Your task to perform on an android device: turn notification dots on Image 0: 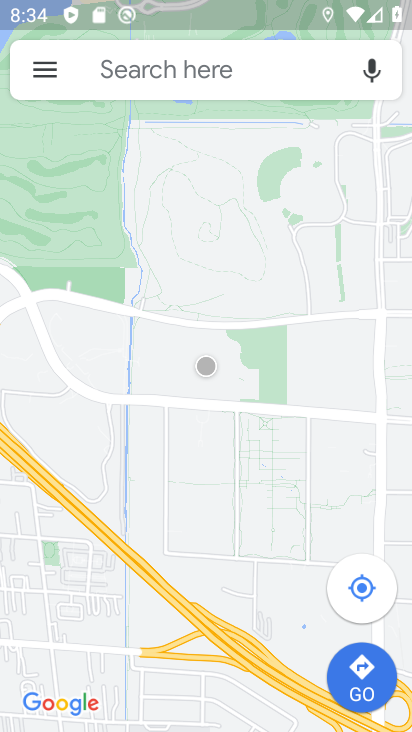
Step 0: press home button
Your task to perform on an android device: turn notification dots on Image 1: 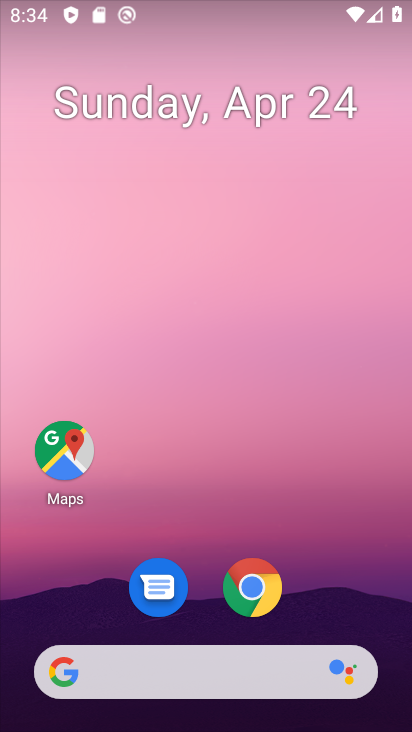
Step 1: drag from (271, 94) to (282, 0)
Your task to perform on an android device: turn notification dots on Image 2: 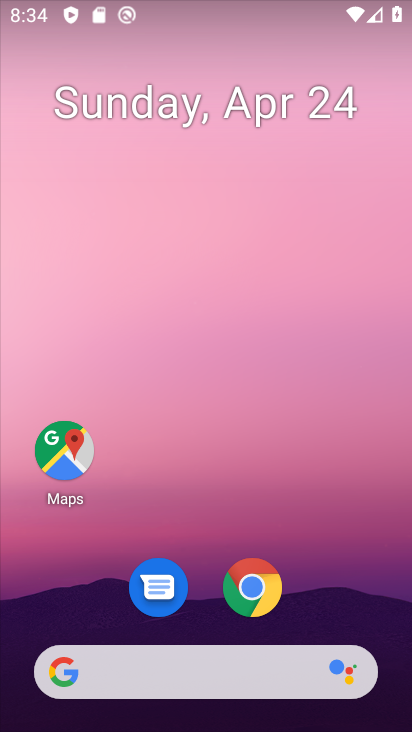
Step 2: drag from (205, 584) to (316, 7)
Your task to perform on an android device: turn notification dots on Image 3: 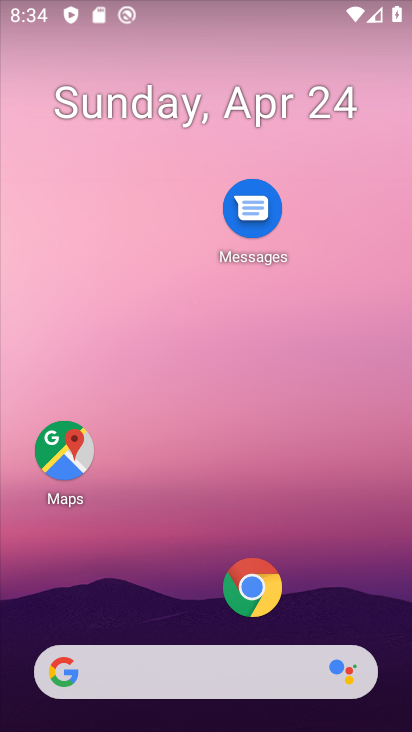
Step 3: drag from (161, 497) to (233, 3)
Your task to perform on an android device: turn notification dots on Image 4: 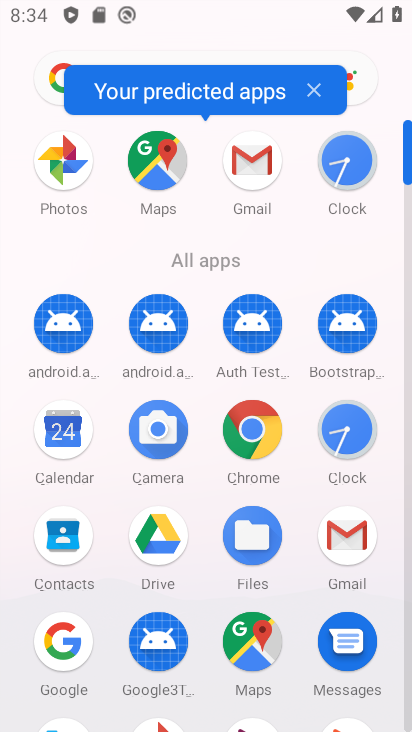
Step 4: drag from (197, 600) to (279, 37)
Your task to perform on an android device: turn notification dots on Image 5: 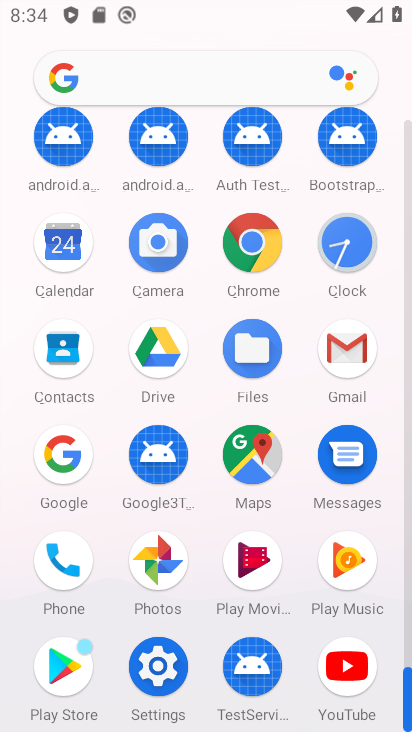
Step 5: click (146, 679)
Your task to perform on an android device: turn notification dots on Image 6: 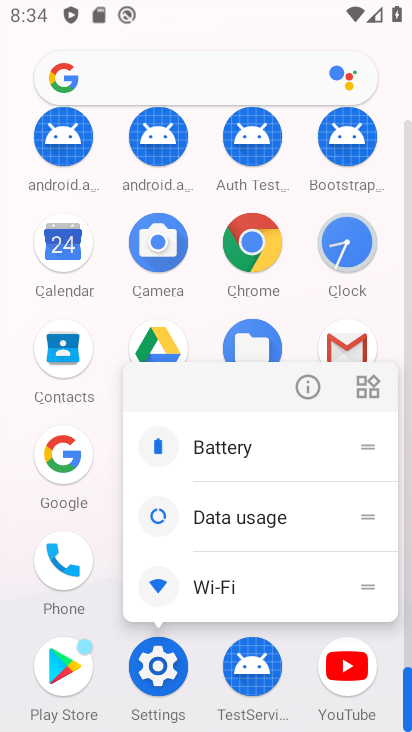
Step 6: click (150, 677)
Your task to perform on an android device: turn notification dots on Image 7: 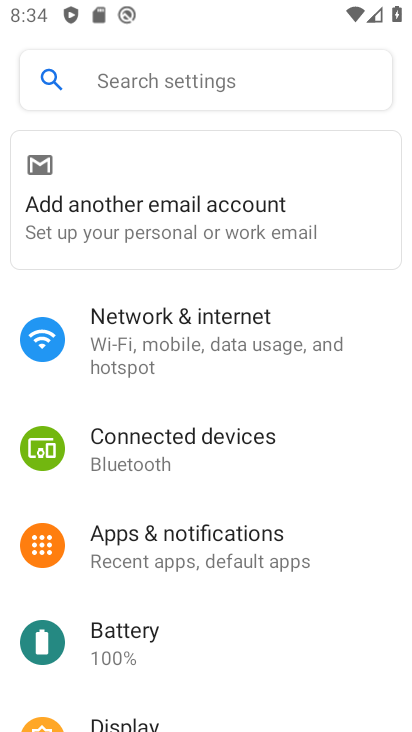
Step 7: click (192, 548)
Your task to perform on an android device: turn notification dots on Image 8: 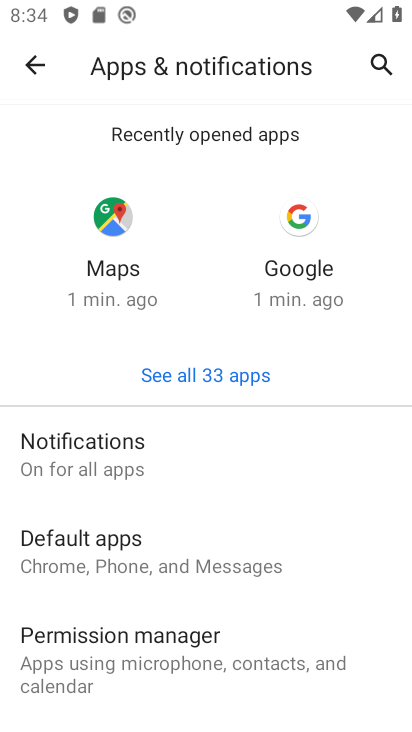
Step 8: click (130, 462)
Your task to perform on an android device: turn notification dots on Image 9: 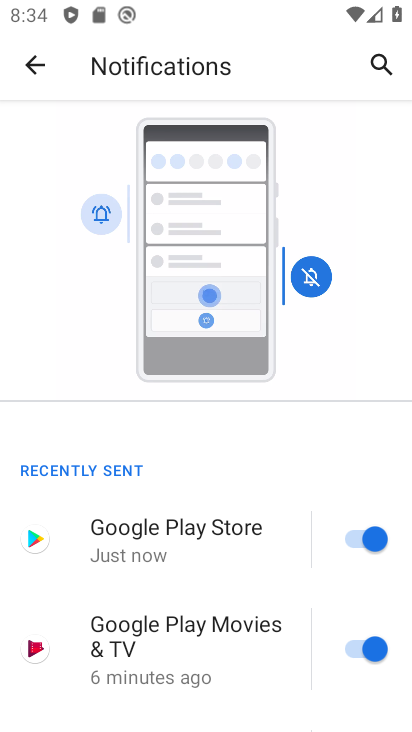
Step 9: drag from (189, 579) to (254, 0)
Your task to perform on an android device: turn notification dots on Image 10: 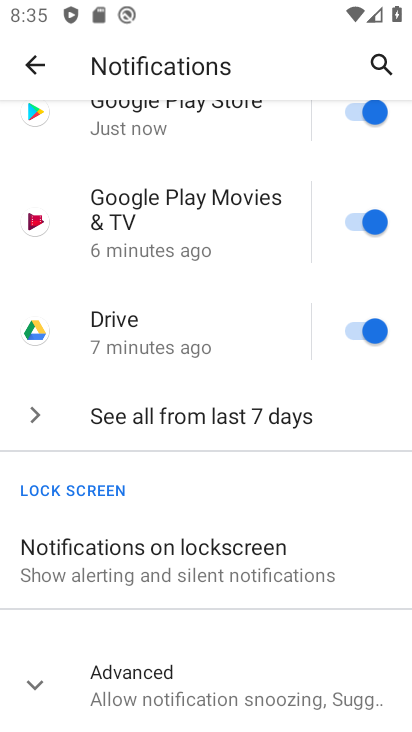
Step 10: click (143, 668)
Your task to perform on an android device: turn notification dots on Image 11: 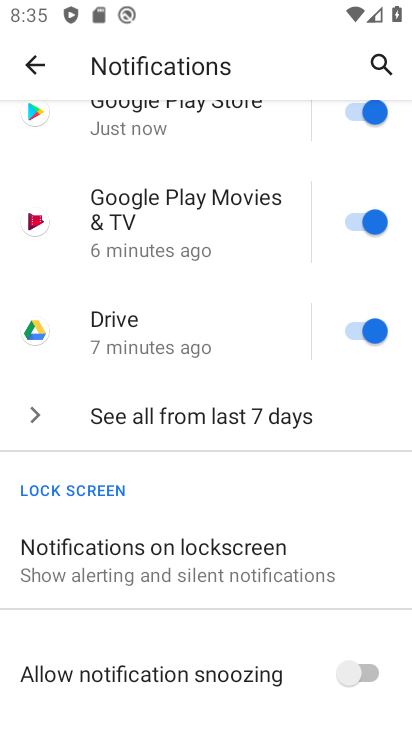
Step 11: task complete